Your task to perform on an android device: Go to sound settings Image 0: 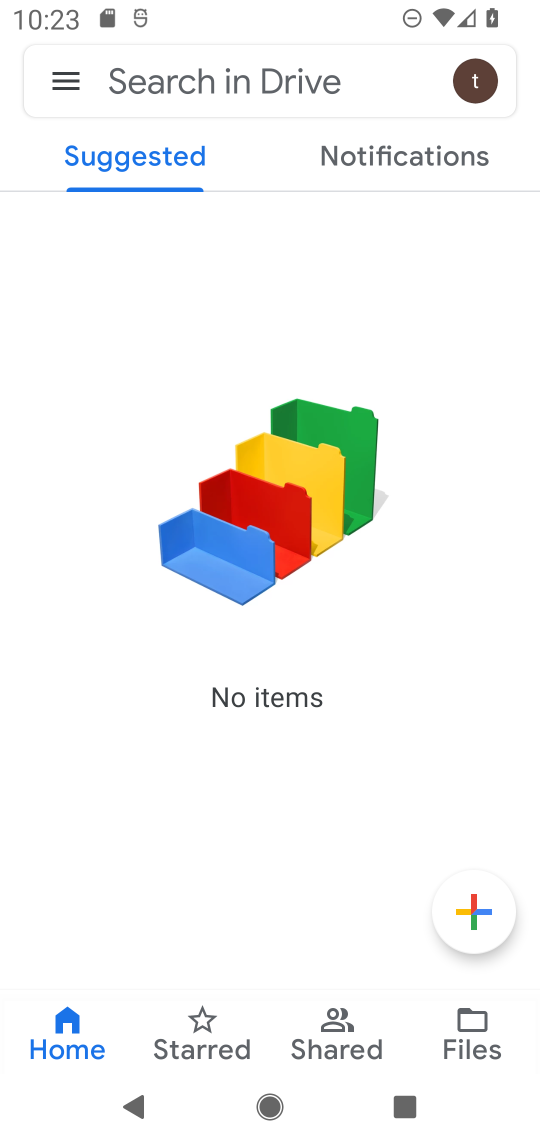
Step 0: press home button
Your task to perform on an android device: Go to sound settings Image 1: 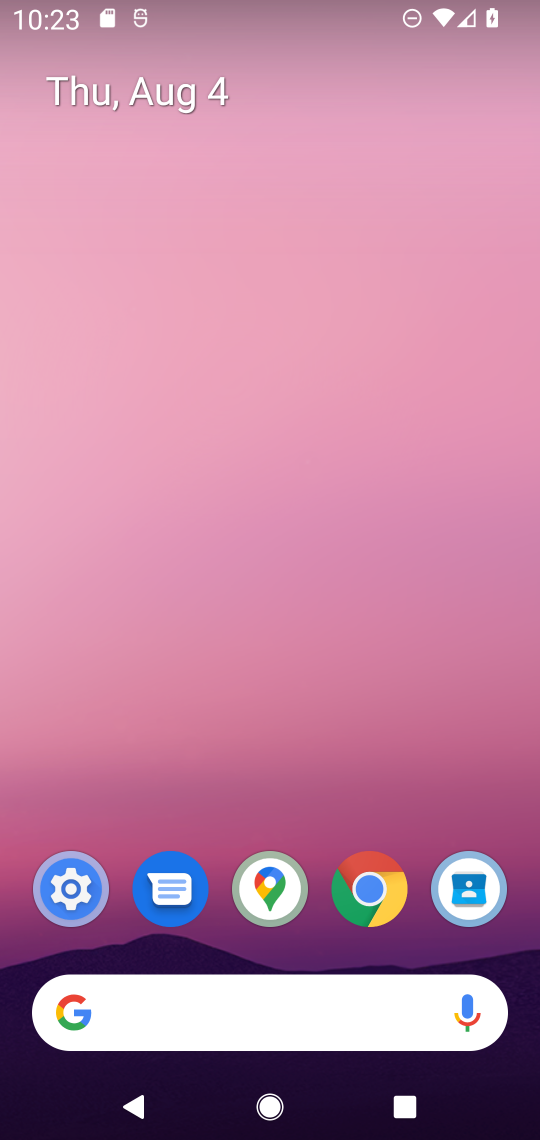
Step 1: drag from (437, 814) to (491, 400)
Your task to perform on an android device: Go to sound settings Image 2: 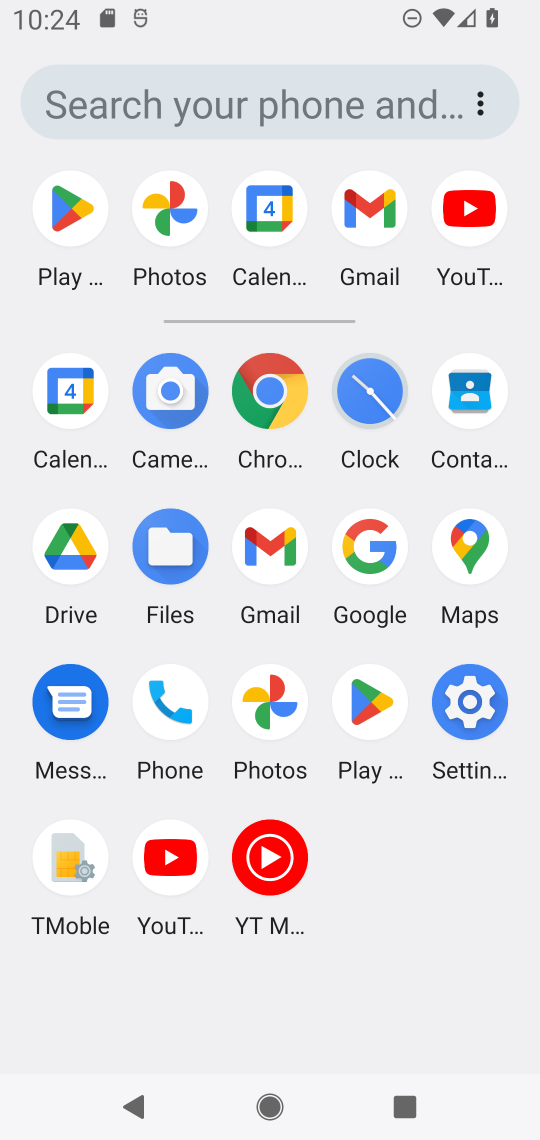
Step 2: click (479, 699)
Your task to perform on an android device: Go to sound settings Image 3: 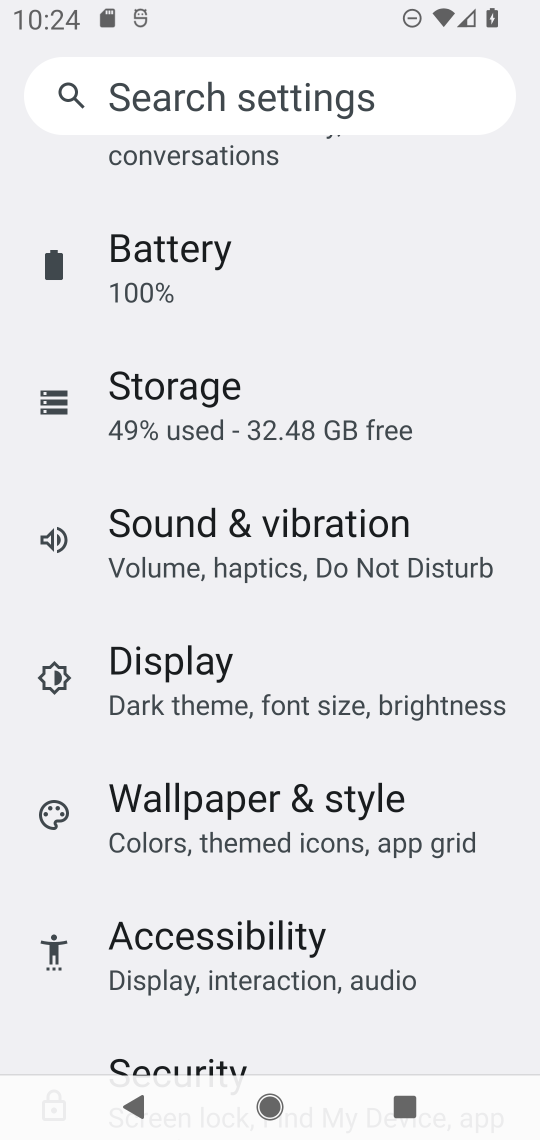
Step 3: drag from (459, 415) to (467, 528)
Your task to perform on an android device: Go to sound settings Image 4: 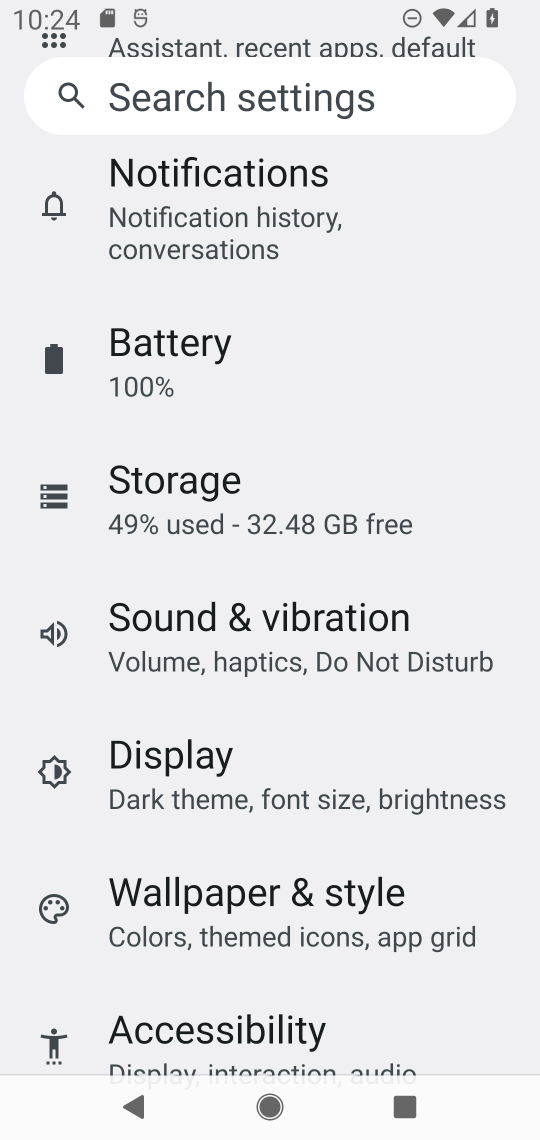
Step 4: drag from (489, 323) to (481, 449)
Your task to perform on an android device: Go to sound settings Image 5: 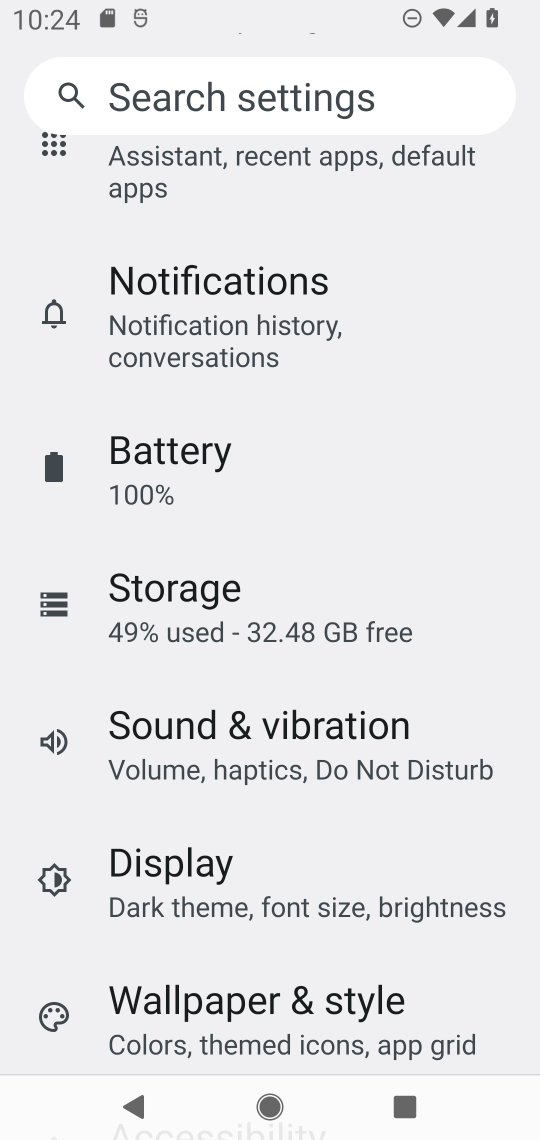
Step 5: drag from (475, 341) to (473, 453)
Your task to perform on an android device: Go to sound settings Image 6: 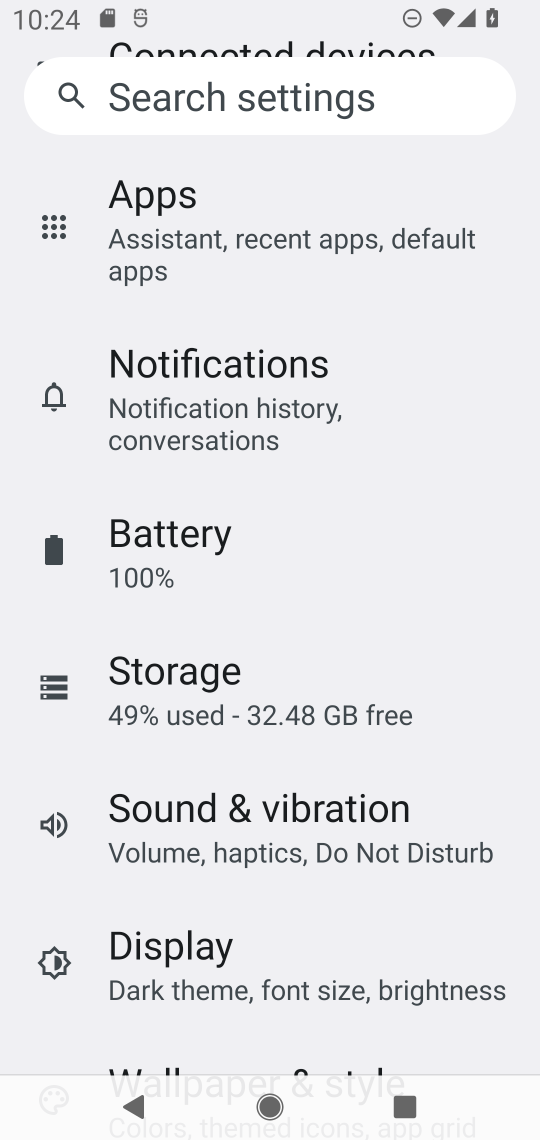
Step 6: drag from (501, 192) to (505, 380)
Your task to perform on an android device: Go to sound settings Image 7: 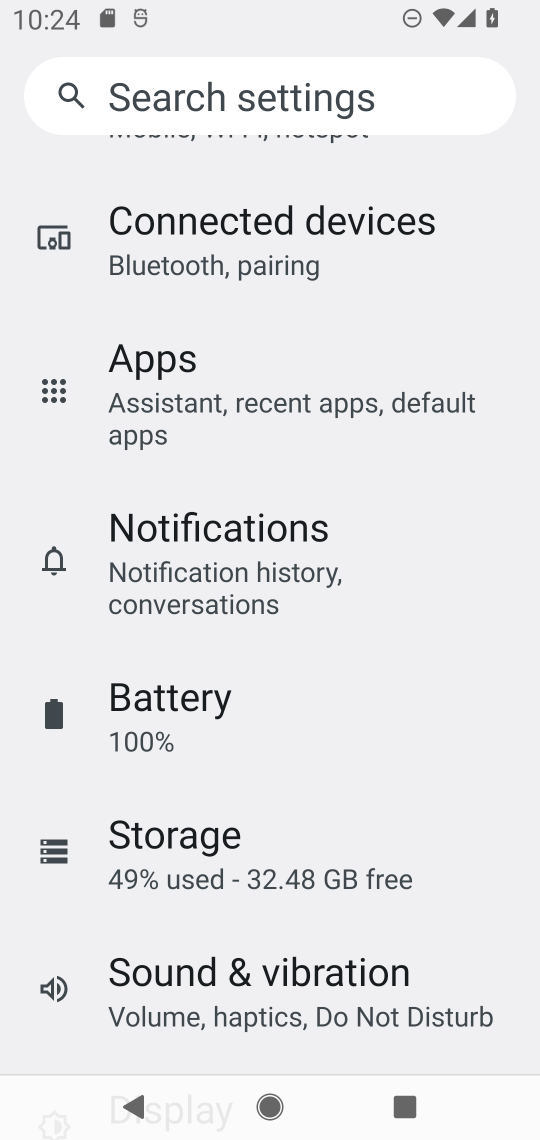
Step 7: drag from (477, 240) to (465, 428)
Your task to perform on an android device: Go to sound settings Image 8: 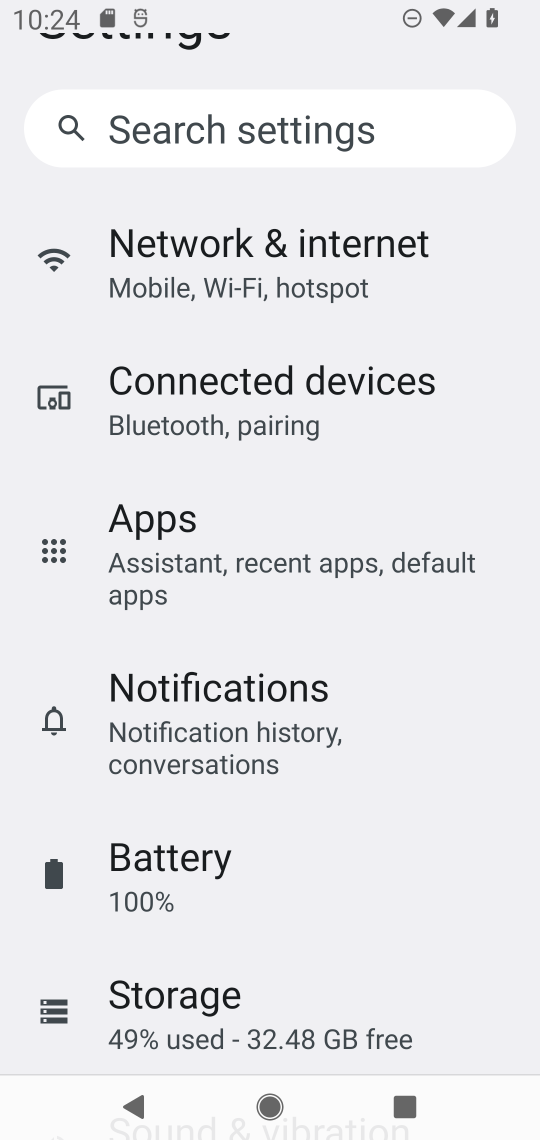
Step 8: drag from (474, 242) to (461, 398)
Your task to perform on an android device: Go to sound settings Image 9: 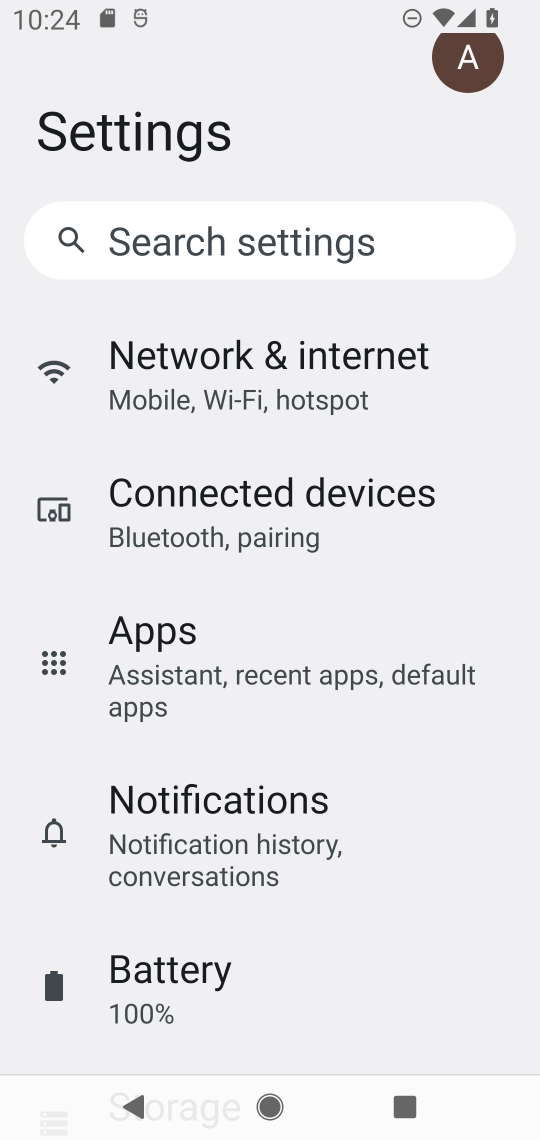
Step 9: drag from (427, 791) to (434, 598)
Your task to perform on an android device: Go to sound settings Image 10: 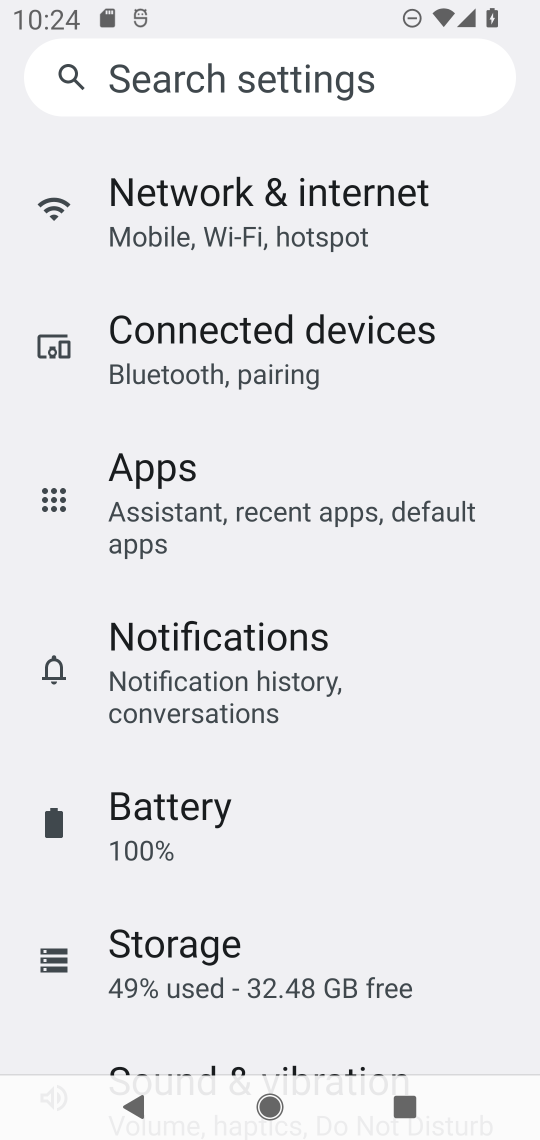
Step 10: drag from (413, 782) to (423, 587)
Your task to perform on an android device: Go to sound settings Image 11: 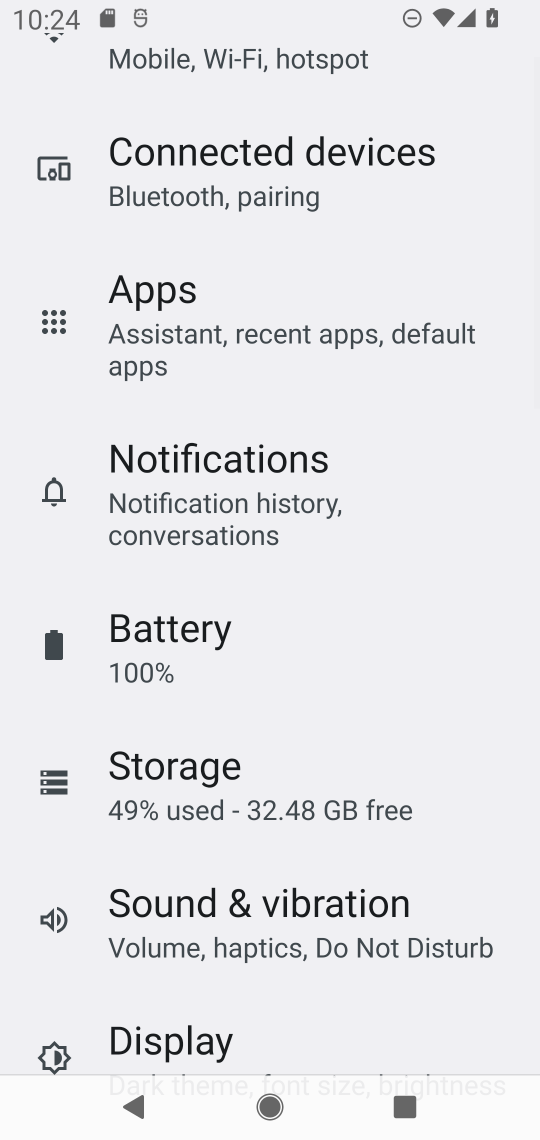
Step 11: drag from (424, 920) to (437, 687)
Your task to perform on an android device: Go to sound settings Image 12: 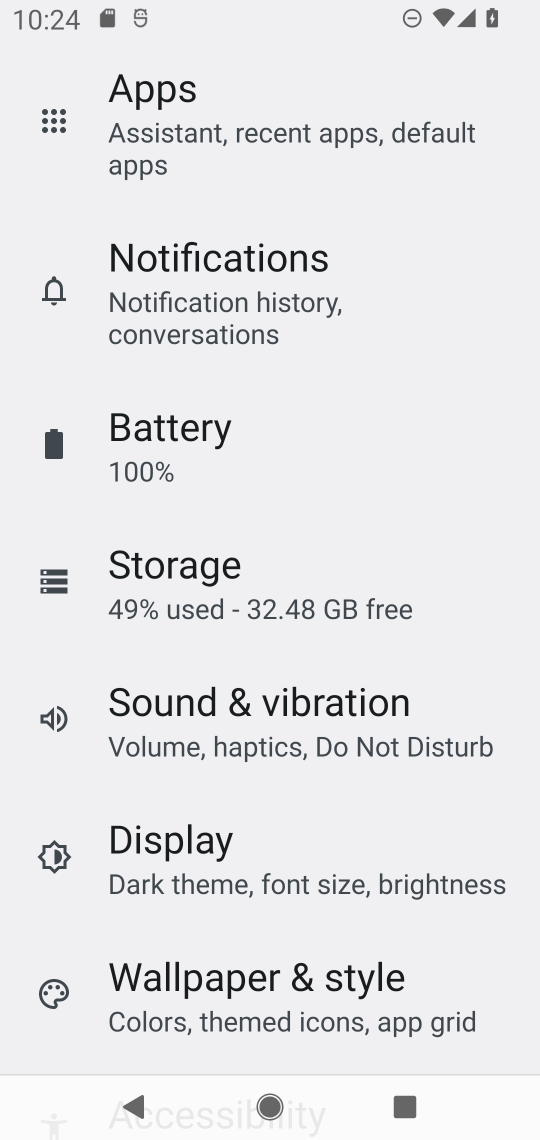
Step 12: click (376, 727)
Your task to perform on an android device: Go to sound settings Image 13: 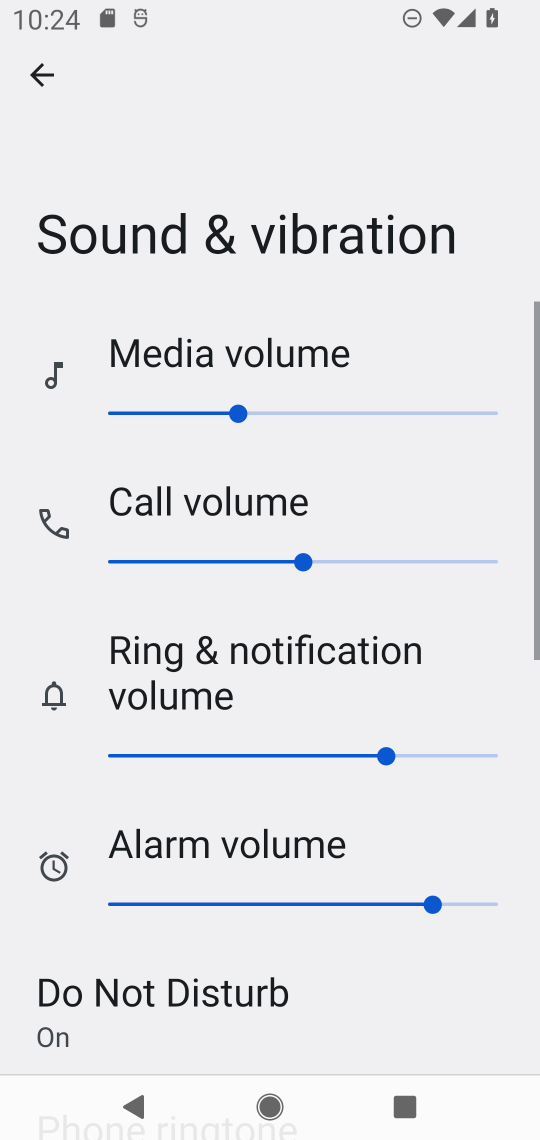
Step 13: task complete